Your task to perform on an android device: turn off improve location accuracy Image 0: 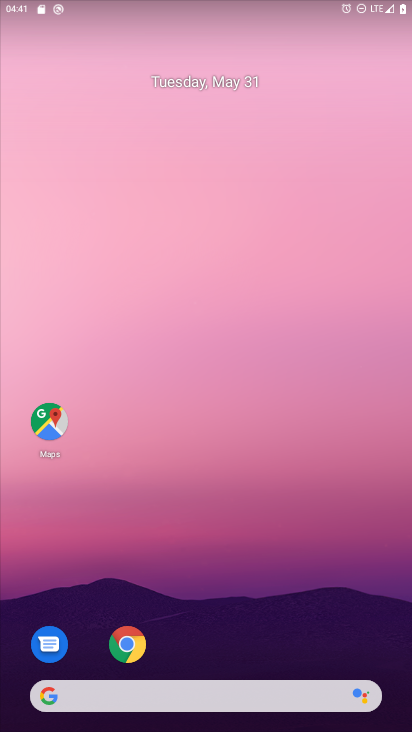
Step 0: drag from (257, 317) to (255, 105)
Your task to perform on an android device: turn off improve location accuracy Image 1: 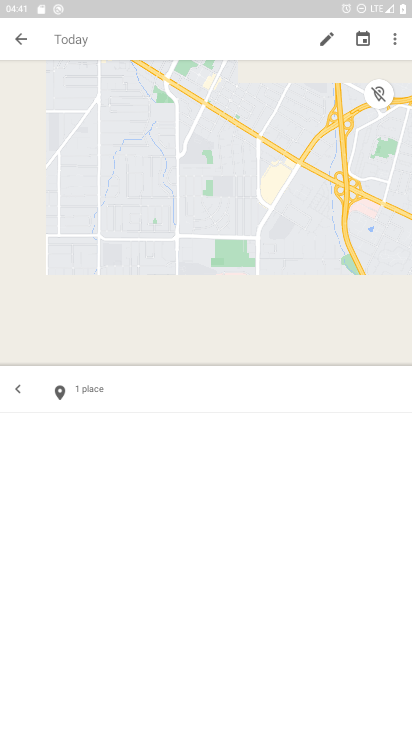
Step 1: press home button
Your task to perform on an android device: turn off improve location accuracy Image 2: 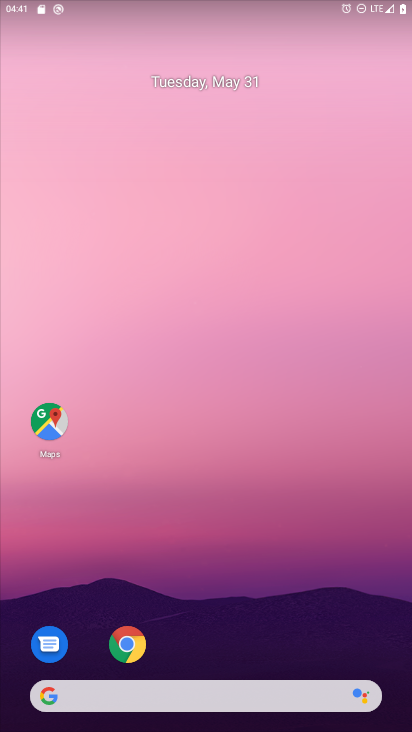
Step 2: drag from (294, 639) to (294, 209)
Your task to perform on an android device: turn off improve location accuracy Image 3: 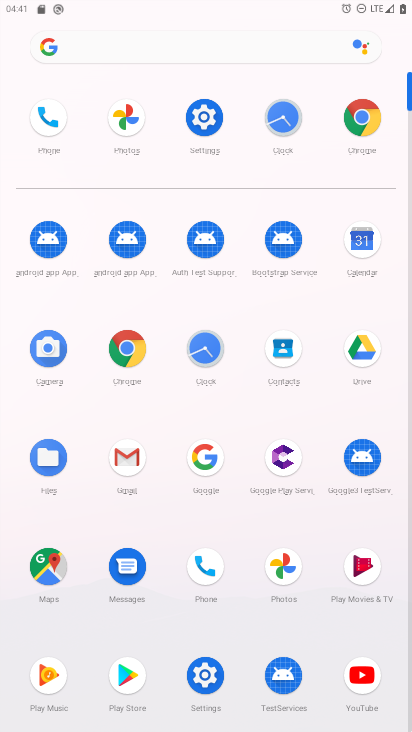
Step 3: click (199, 113)
Your task to perform on an android device: turn off improve location accuracy Image 4: 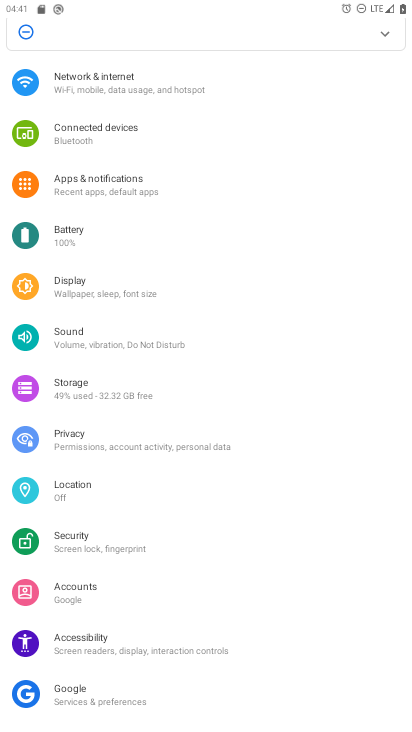
Step 4: click (82, 487)
Your task to perform on an android device: turn off improve location accuracy Image 5: 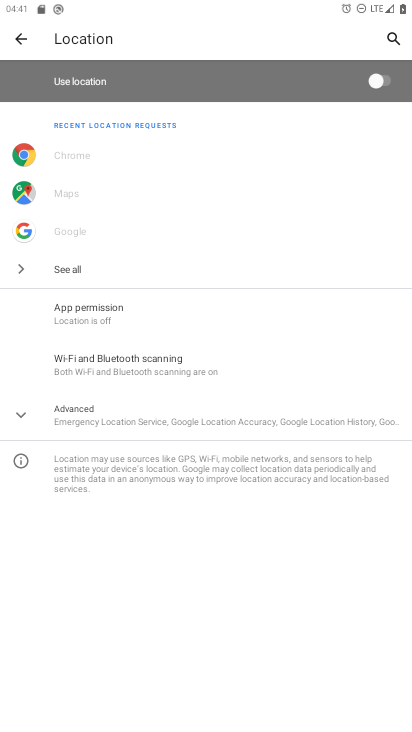
Step 5: click (103, 405)
Your task to perform on an android device: turn off improve location accuracy Image 6: 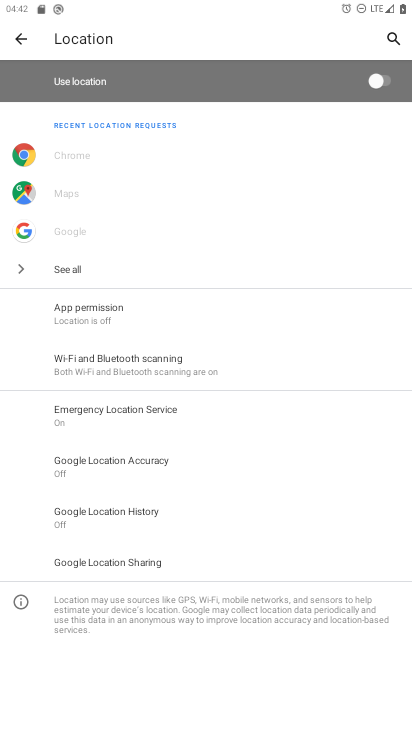
Step 6: click (156, 466)
Your task to perform on an android device: turn off improve location accuracy Image 7: 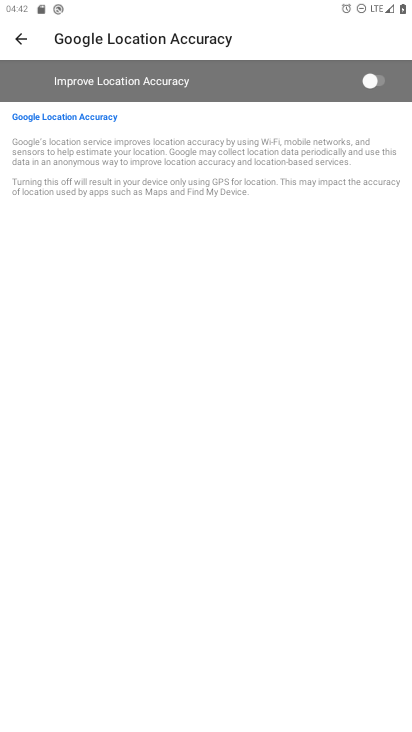
Step 7: task complete